Your task to perform on an android device: turn pop-ups off in chrome Image 0: 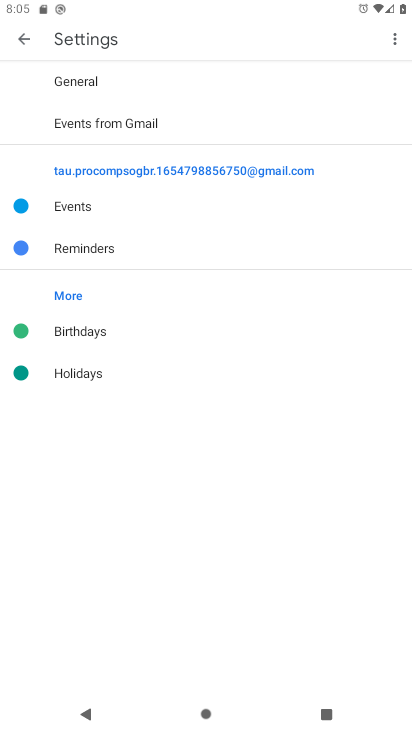
Step 0: press home button
Your task to perform on an android device: turn pop-ups off in chrome Image 1: 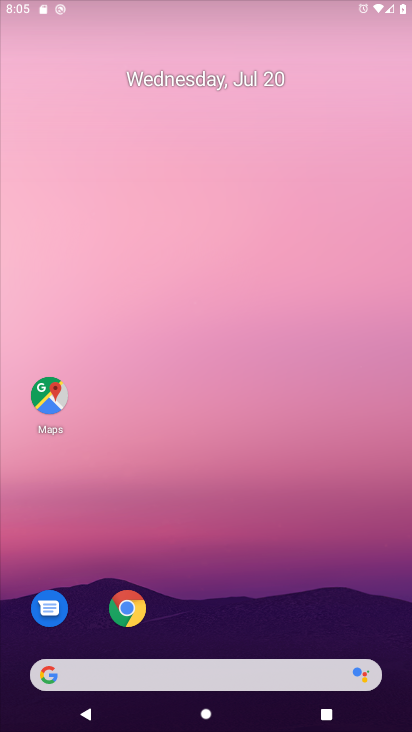
Step 1: drag from (249, 572) to (247, 305)
Your task to perform on an android device: turn pop-ups off in chrome Image 2: 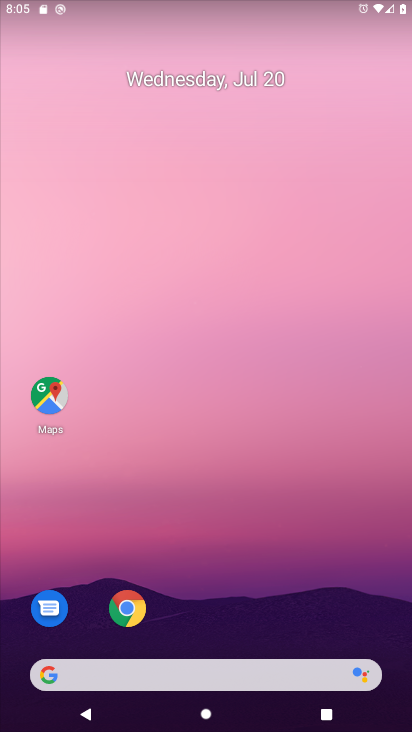
Step 2: drag from (239, 649) to (232, 245)
Your task to perform on an android device: turn pop-ups off in chrome Image 3: 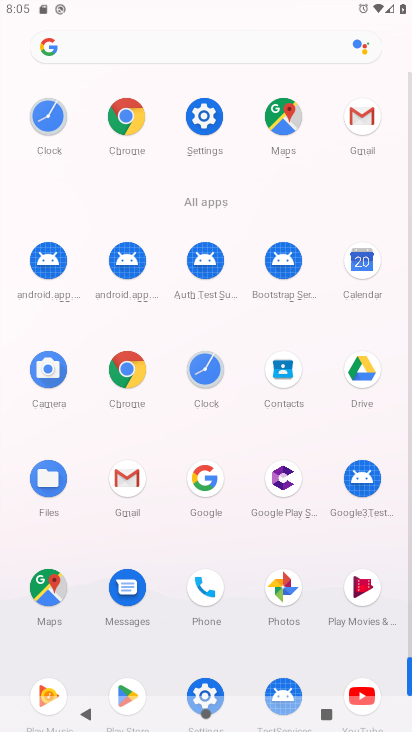
Step 3: click (120, 109)
Your task to perform on an android device: turn pop-ups off in chrome Image 4: 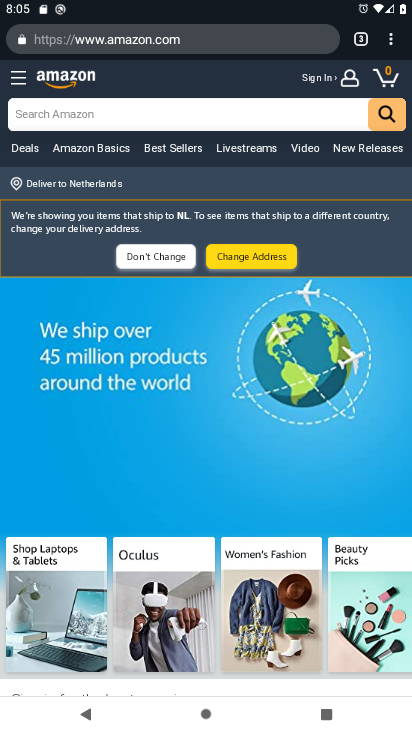
Step 4: click (396, 48)
Your task to perform on an android device: turn pop-ups off in chrome Image 5: 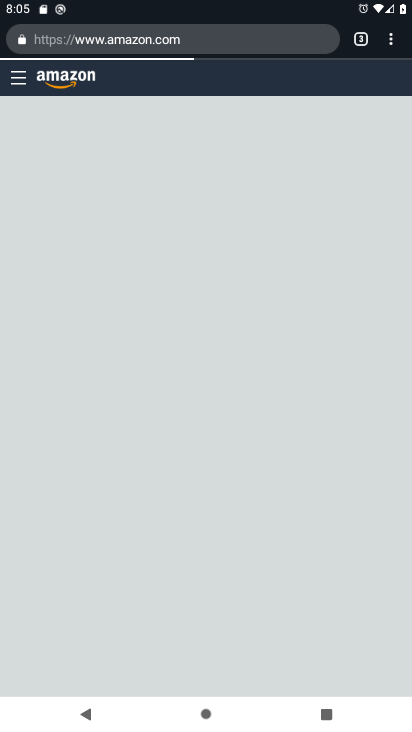
Step 5: click (392, 38)
Your task to perform on an android device: turn pop-ups off in chrome Image 6: 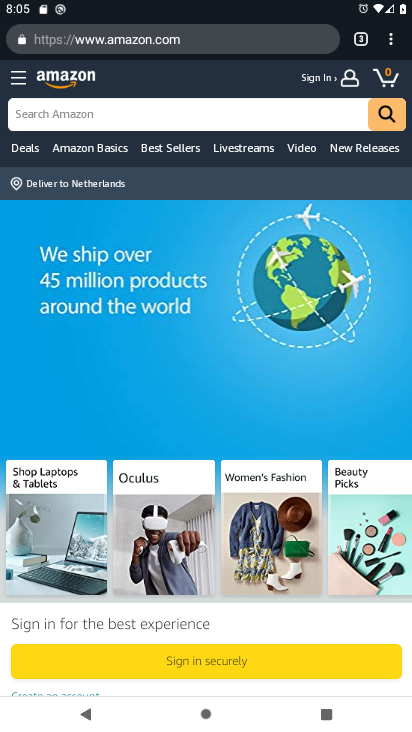
Step 6: click (392, 38)
Your task to perform on an android device: turn pop-ups off in chrome Image 7: 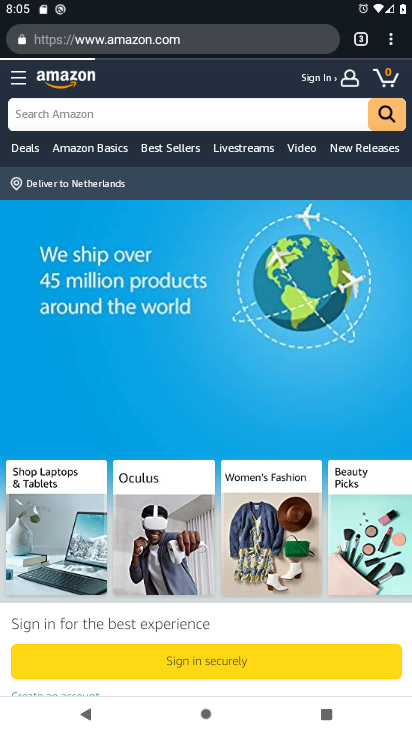
Step 7: click (391, 42)
Your task to perform on an android device: turn pop-ups off in chrome Image 8: 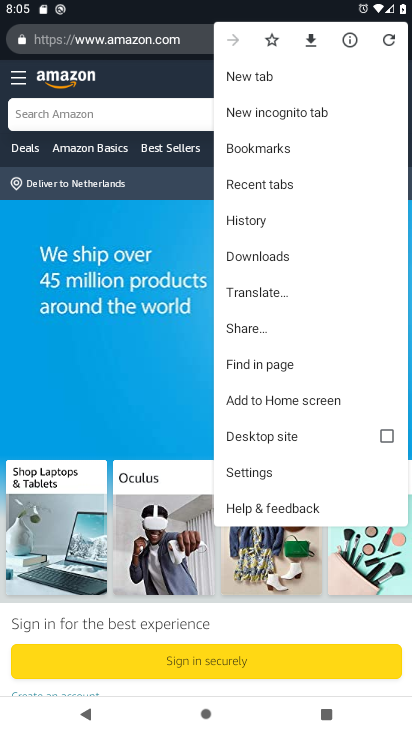
Step 8: click (256, 469)
Your task to perform on an android device: turn pop-ups off in chrome Image 9: 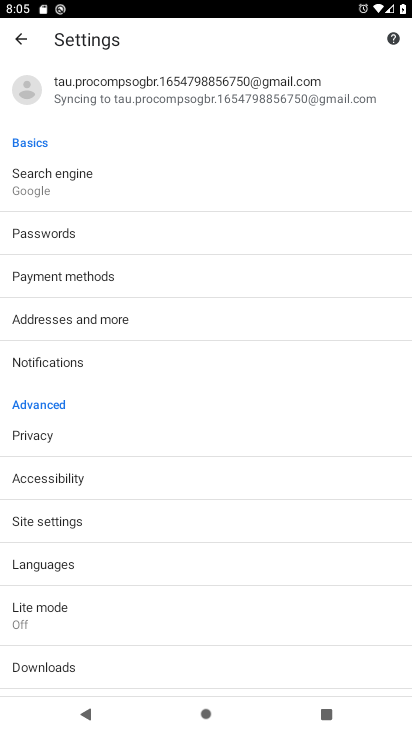
Step 9: click (79, 525)
Your task to perform on an android device: turn pop-ups off in chrome Image 10: 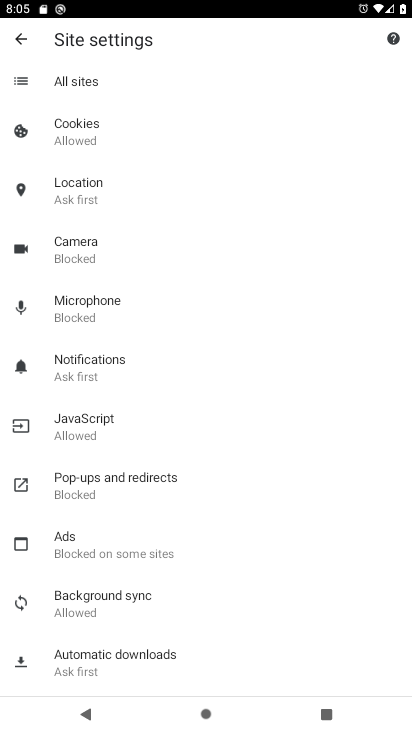
Step 10: click (92, 491)
Your task to perform on an android device: turn pop-ups off in chrome Image 11: 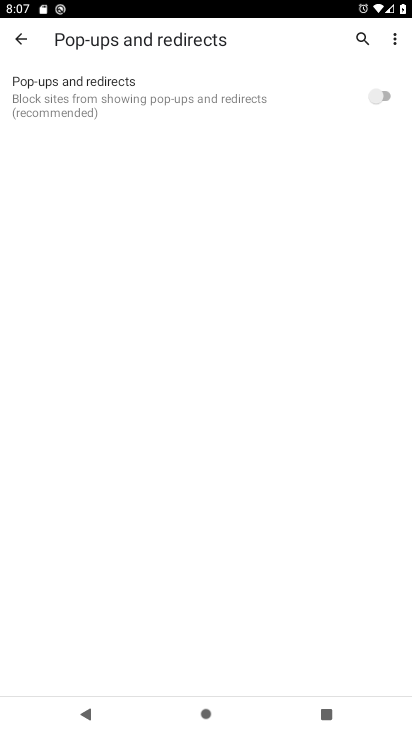
Step 11: task complete